Your task to perform on an android device: turn on showing notifications on the lock screen Image 0: 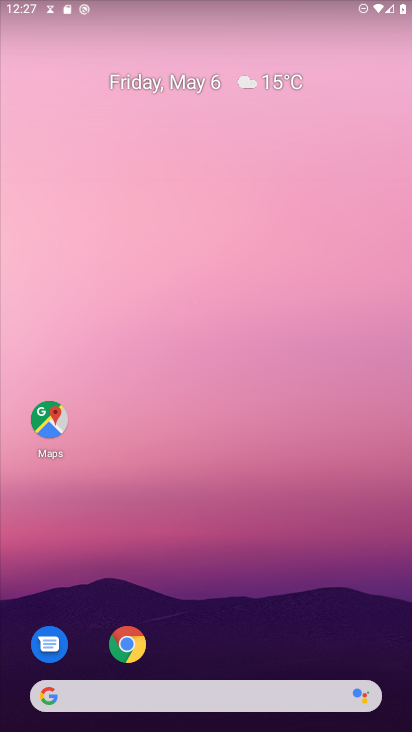
Step 0: drag from (326, 568) to (299, 12)
Your task to perform on an android device: turn on showing notifications on the lock screen Image 1: 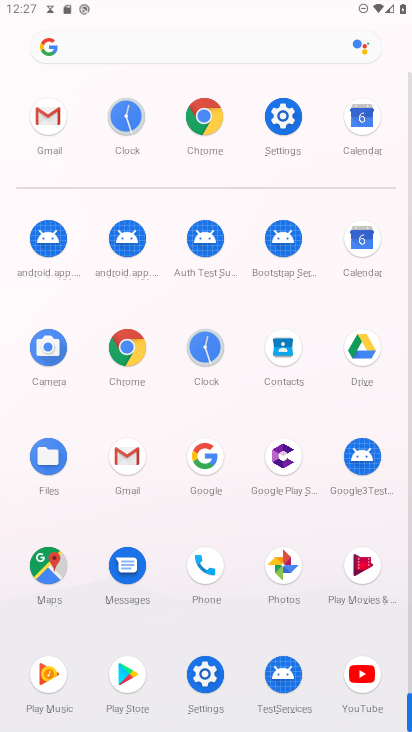
Step 1: drag from (21, 552) to (8, 191)
Your task to perform on an android device: turn on showing notifications on the lock screen Image 2: 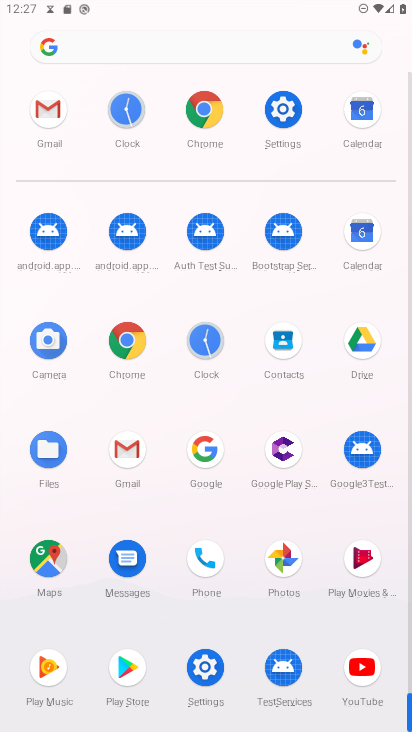
Step 2: click (284, 106)
Your task to perform on an android device: turn on showing notifications on the lock screen Image 3: 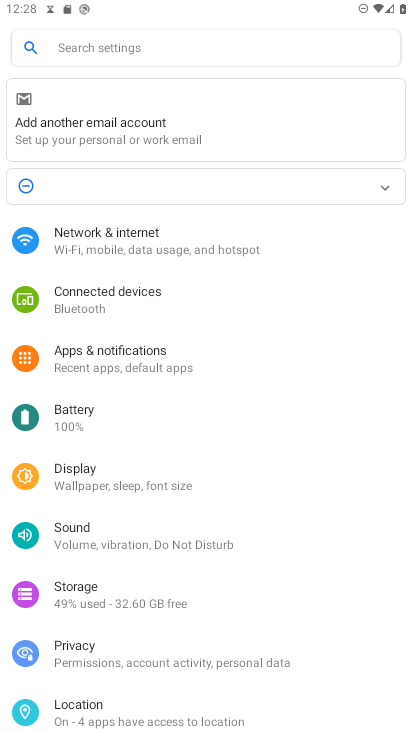
Step 3: drag from (232, 304) to (239, 586)
Your task to perform on an android device: turn on showing notifications on the lock screen Image 4: 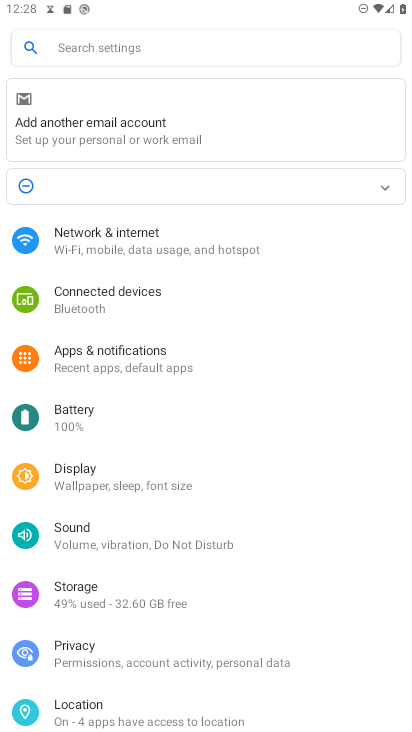
Step 4: drag from (241, 514) to (264, 133)
Your task to perform on an android device: turn on showing notifications on the lock screen Image 5: 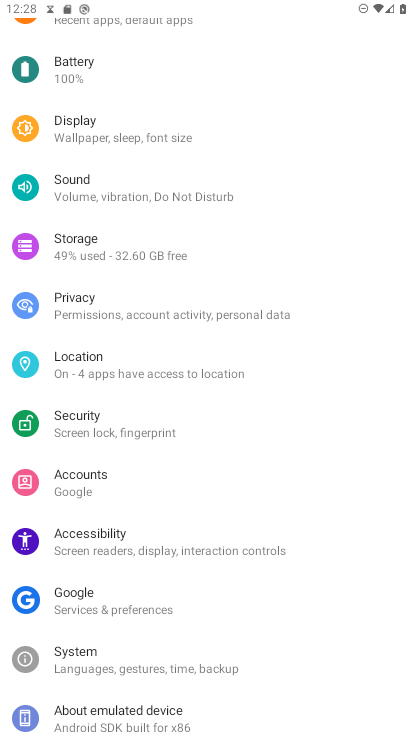
Step 5: drag from (170, 101) to (208, 521)
Your task to perform on an android device: turn on showing notifications on the lock screen Image 6: 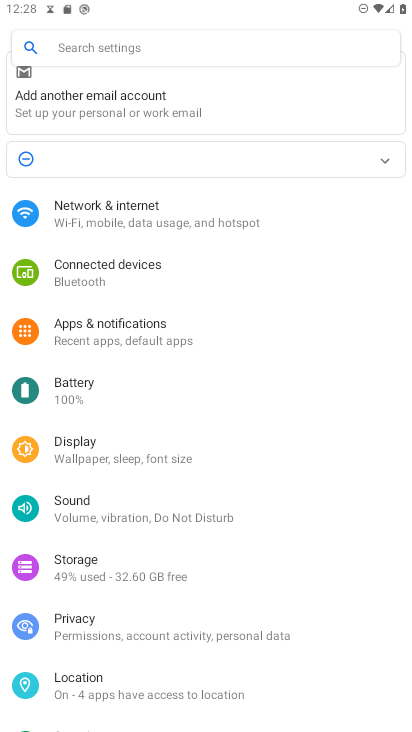
Step 6: click (142, 324)
Your task to perform on an android device: turn on showing notifications on the lock screen Image 7: 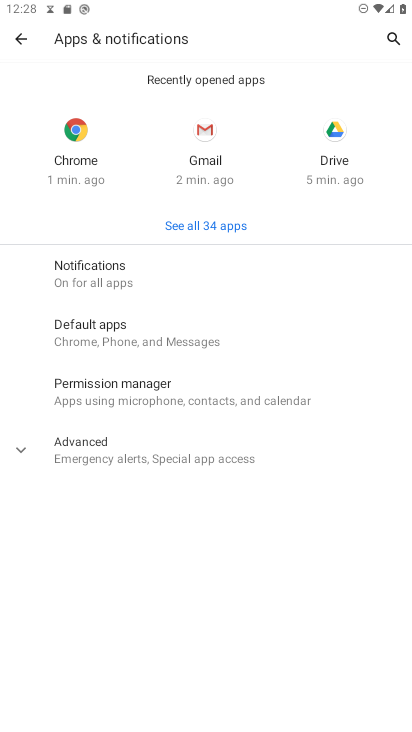
Step 7: click (136, 261)
Your task to perform on an android device: turn on showing notifications on the lock screen Image 8: 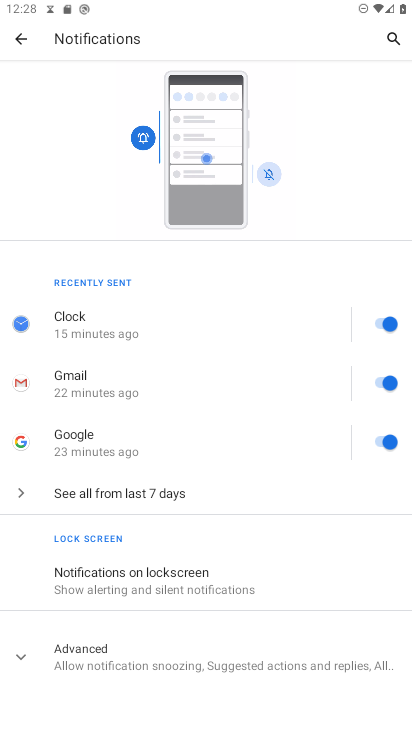
Step 8: drag from (183, 613) to (282, 162)
Your task to perform on an android device: turn on showing notifications on the lock screen Image 9: 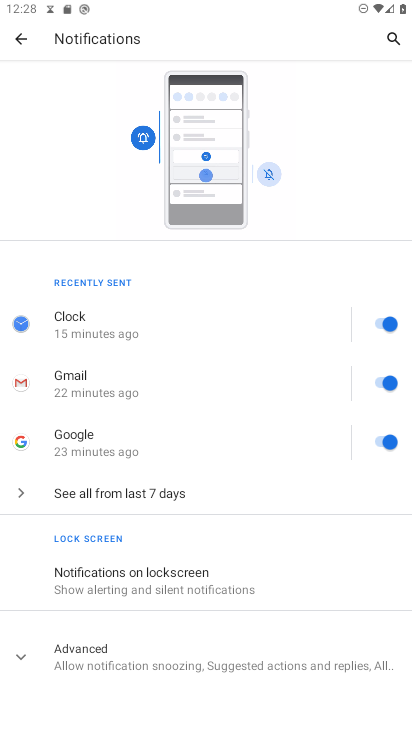
Step 9: click (77, 661)
Your task to perform on an android device: turn on showing notifications on the lock screen Image 10: 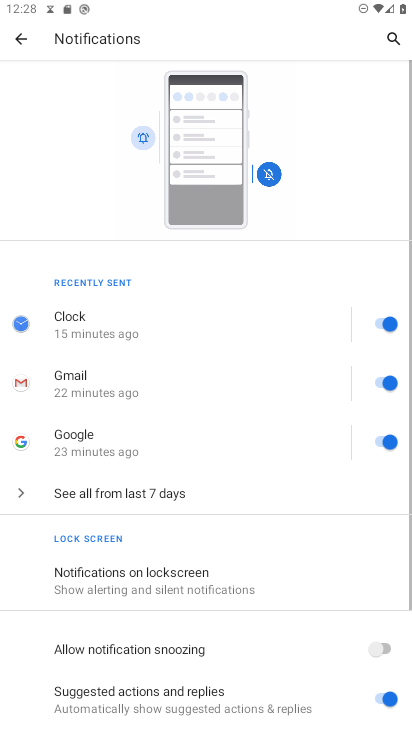
Step 10: drag from (237, 621) to (287, 202)
Your task to perform on an android device: turn on showing notifications on the lock screen Image 11: 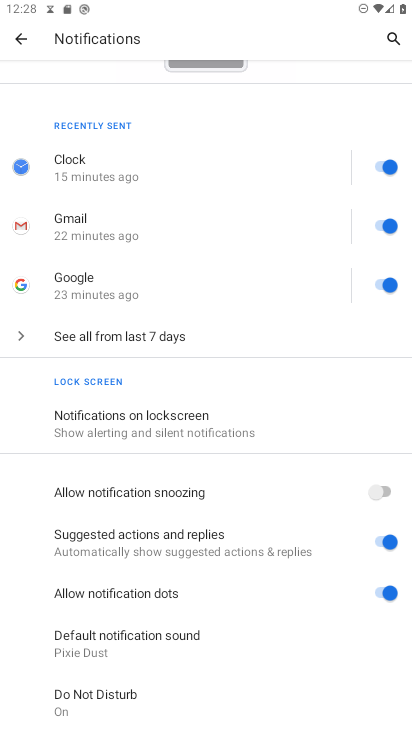
Step 11: click (205, 428)
Your task to perform on an android device: turn on showing notifications on the lock screen Image 12: 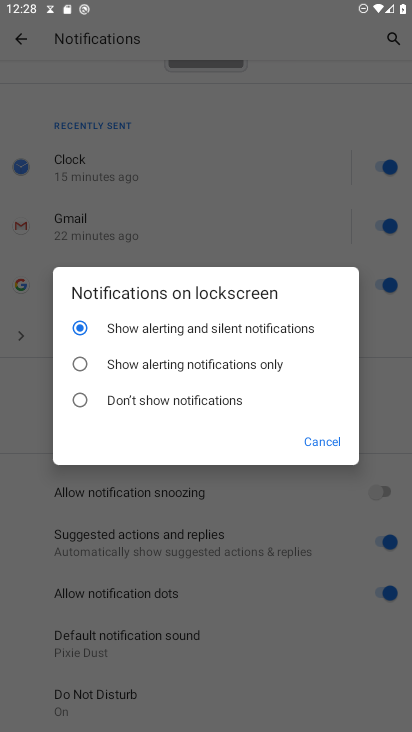
Step 12: click (239, 318)
Your task to perform on an android device: turn on showing notifications on the lock screen Image 13: 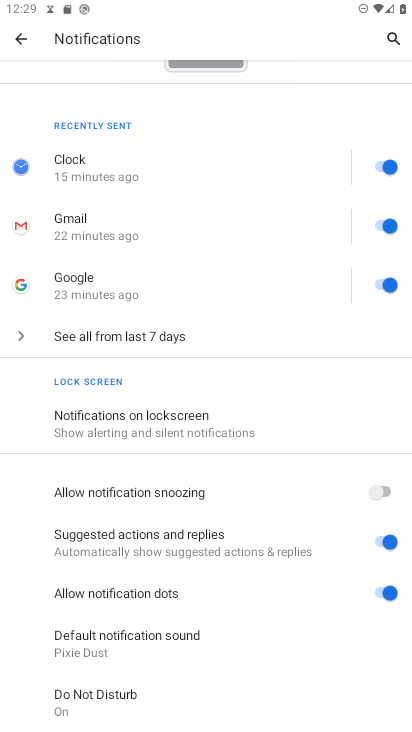
Step 13: task complete